Your task to perform on an android device: Open sound settings Image 0: 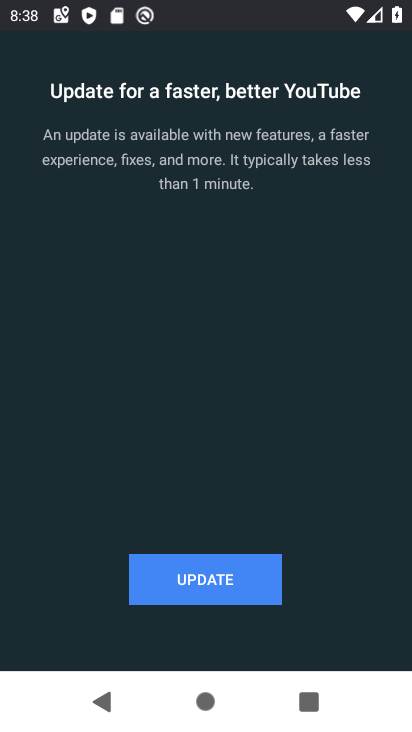
Step 0: press home button
Your task to perform on an android device: Open sound settings Image 1: 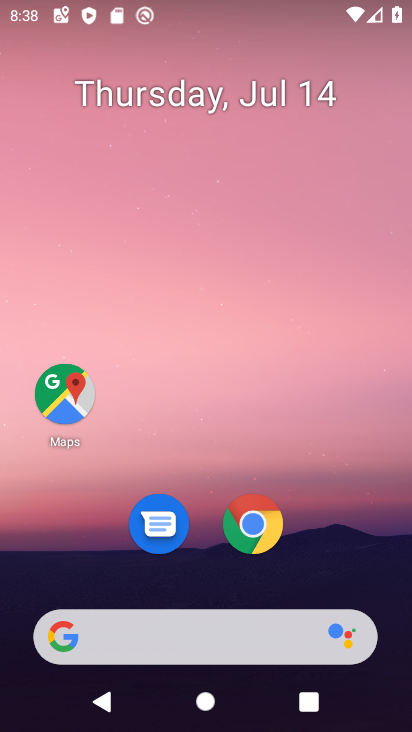
Step 1: drag from (304, 570) to (316, 67)
Your task to perform on an android device: Open sound settings Image 2: 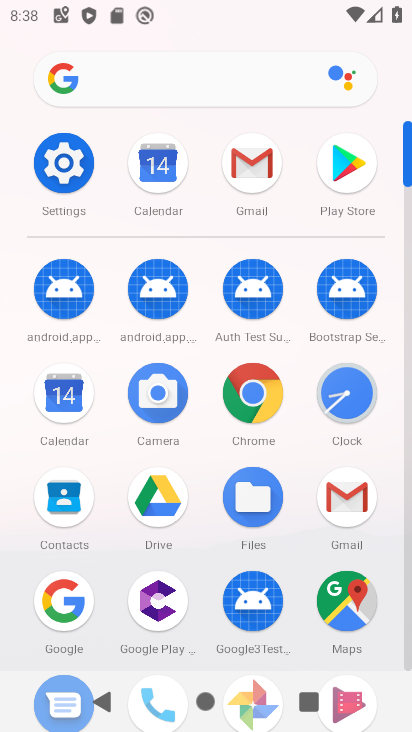
Step 2: click (74, 164)
Your task to perform on an android device: Open sound settings Image 3: 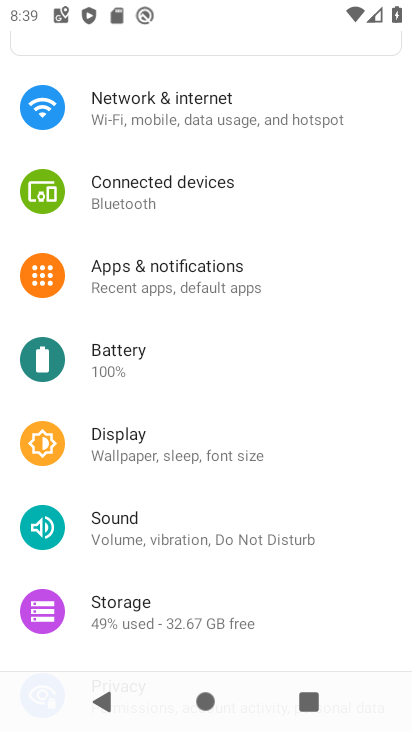
Step 3: click (205, 527)
Your task to perform on an android device: Open sound settings Image 4: 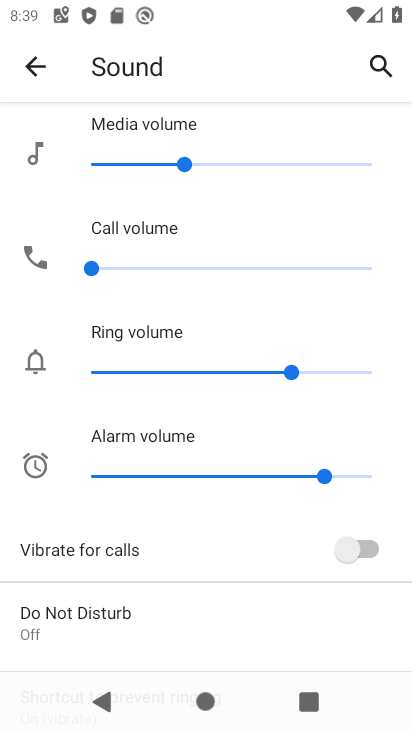
Step 4: task complete